Your task to perform on an android device: Open Google Image 0: 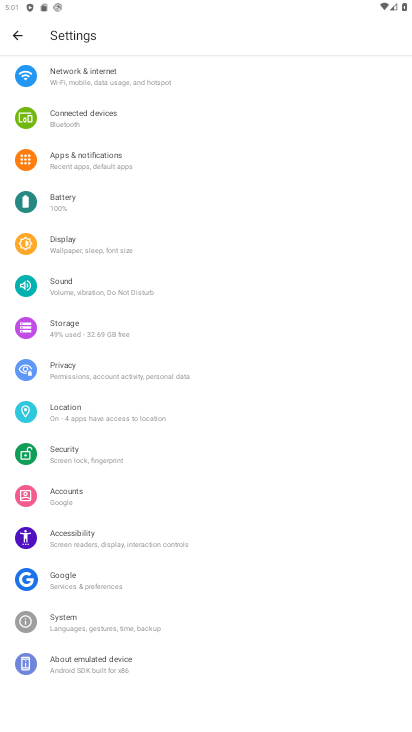
Step 0: press home button
Your task to perform on an android device: Open Google Image 1: 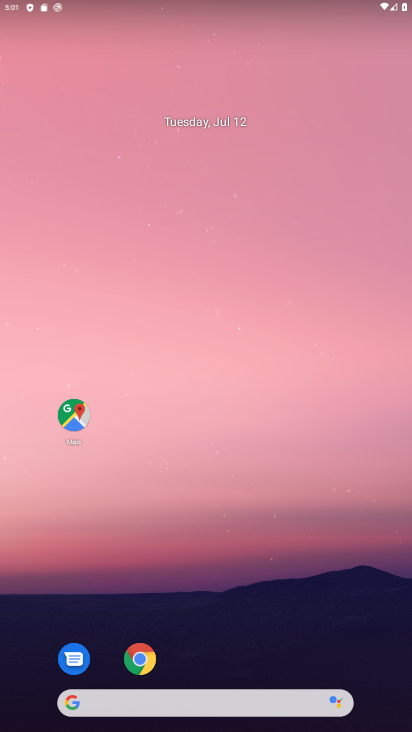
Step 1: click (139, 660)
Your task to perform on an android device: Open Google Image 2: 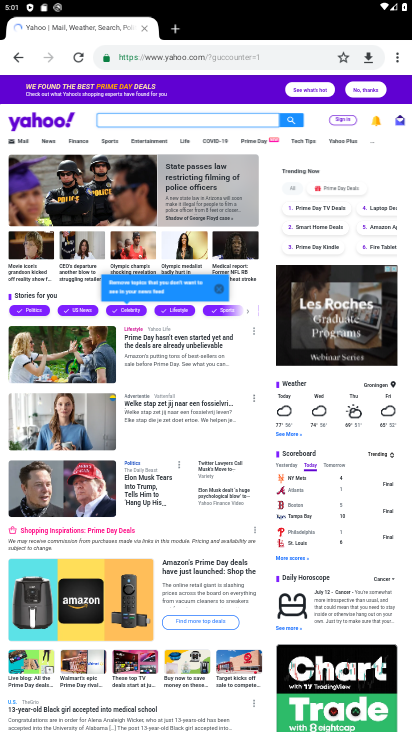
Step 2: click (16, 56)
Your task to perform on an android device: Open Google Image 3: 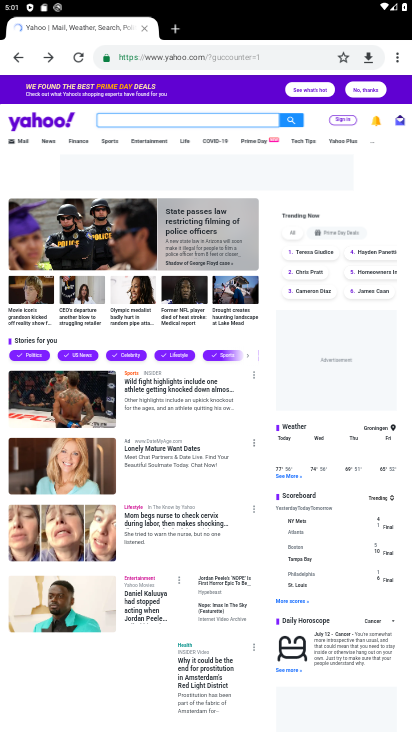
Step 3: click (16, 56)
Your task to perform on an android device: Open Google Image 4: 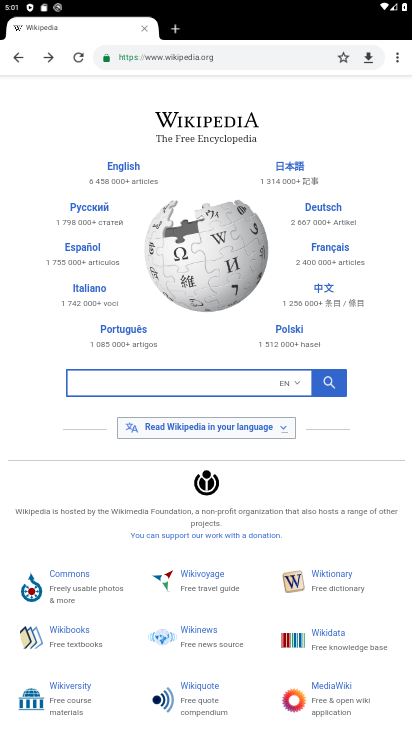
Step 4: task complete